Your task to perform on an android device: Go to network settings Image 0: 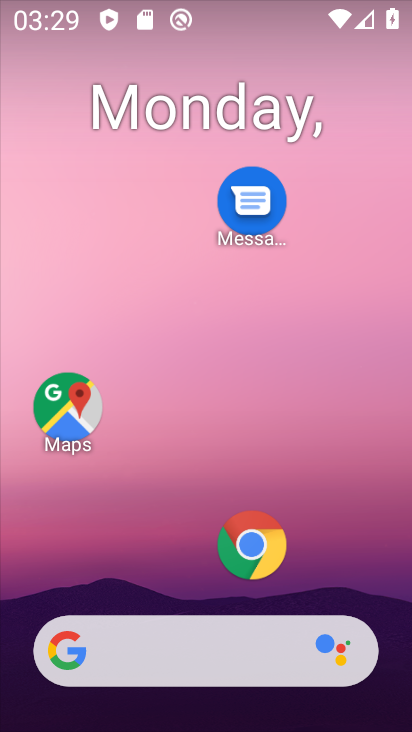
Step 0: drag from (158, 557) to (250, 183)
Your task to perform on an android device: Go to network settings Image 1: 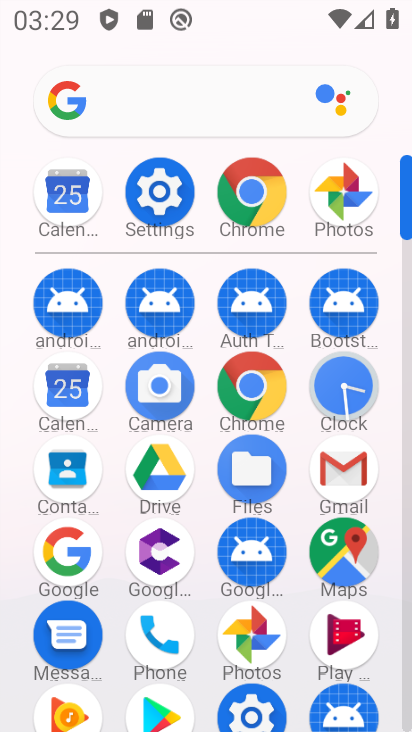
Step 1: click (166, 180)
Your task to perform on an android device: Go to network settings Image 2: 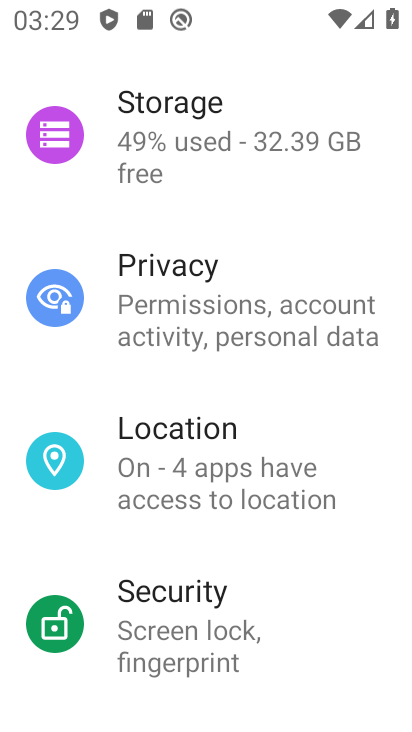
Step 2: drag from (227, 207) to (206, 718)
Your task to perform on an android device: Go to network settings Image 3: 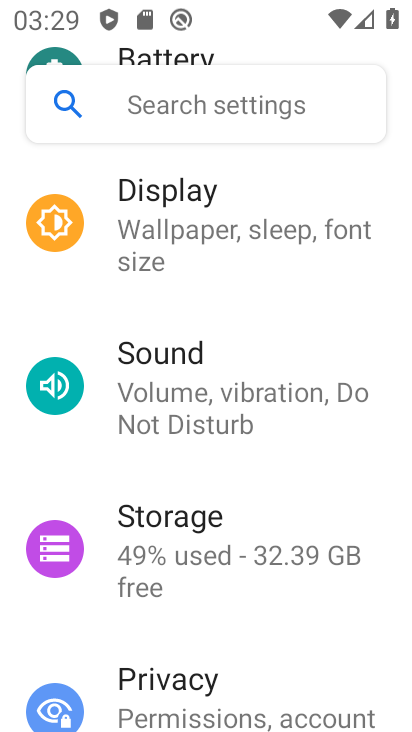
Step 3: drag from (224, 314) to (235, 721)
Your task to perform on an android device: Go to network settings Image 4: 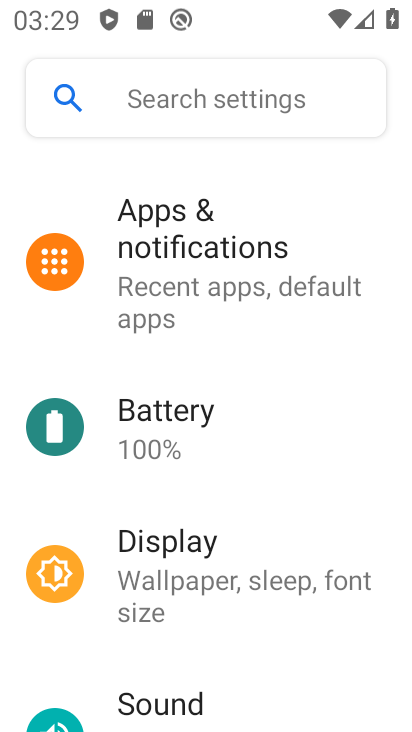
Step 4: drag from (200, 256) to (201, 668)
Your task to perform on an android device: Go to network settings Image 5: 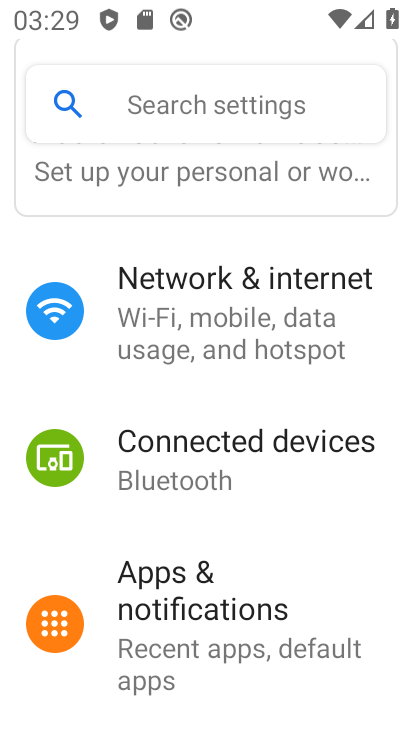
Step 5: click (224, 308)
Your task to perform on an android device: Go to network settings Image 6: 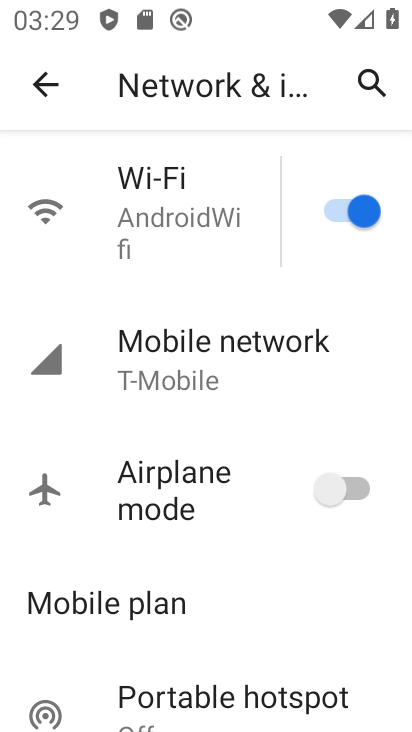
Step 6: task complete